Your task to perform on an android device: add a label to a message in the gmail app Image 0: 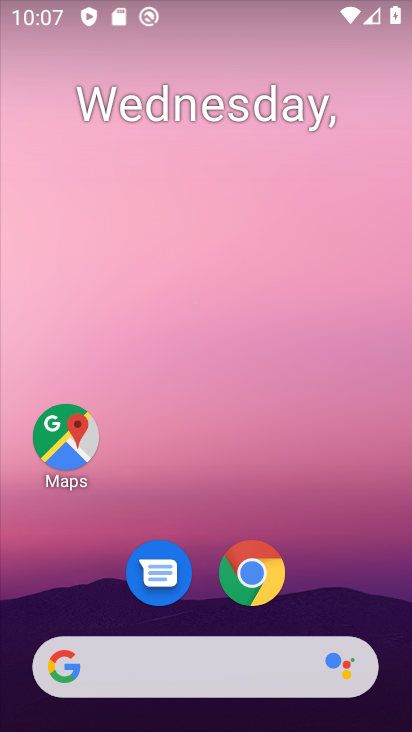
Step 0: drag from (201, 620) to (318, 253)
Your task to perform on an android device: add a label to a message in the gmail app Image 1: 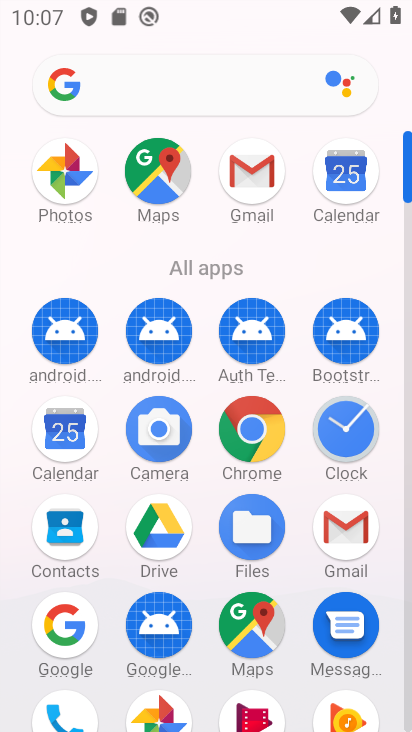
Step 1: click (332, 527)
Your task to perform on an android device: add a label to a message in the gmail app Image 2: 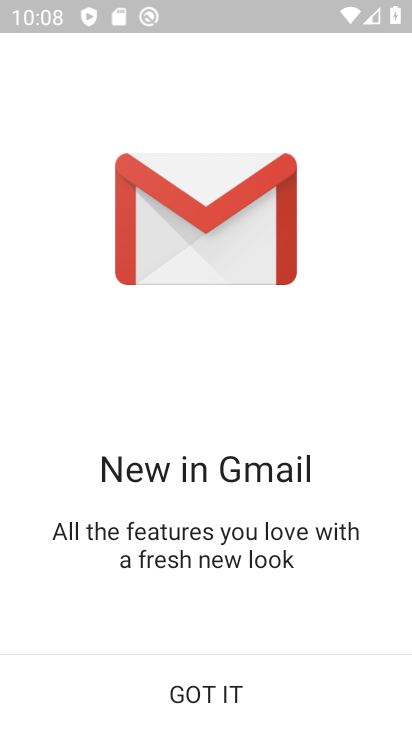
Step 2: click (182, 703)
Your task to perform on an android device: add a label to a message in the gmail app Image 3: 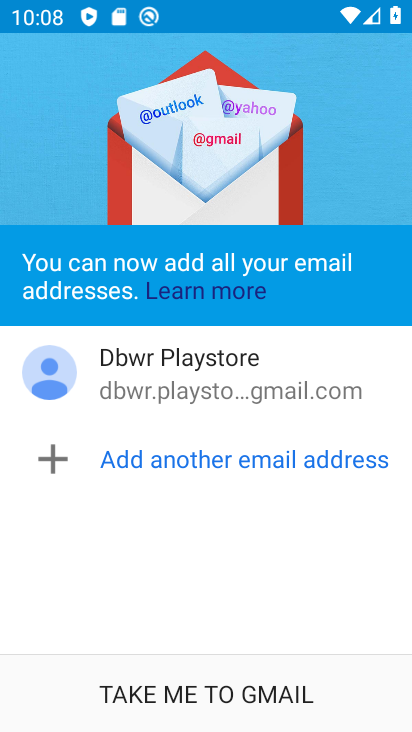
Step 3: click (176, 702)
Your task to perform on an android device: add a label to a message in the gmail app Image 4: 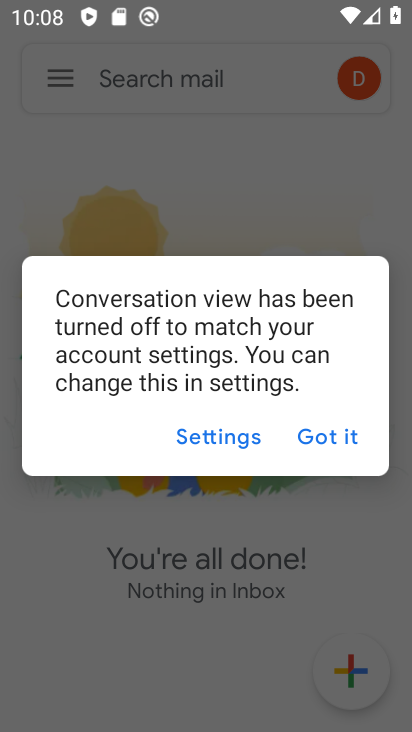
Step 4: click (311, 427)
Your task to perform on an android device: add a label to a message in the gmail app Image 5: 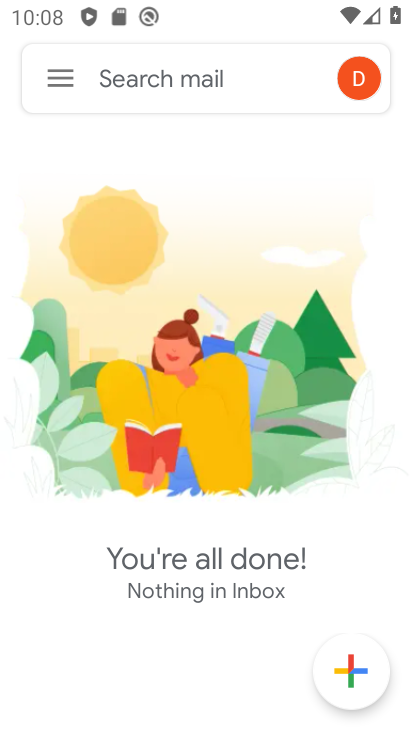
Step 5: click (39, 83)
Your task to perform on an android device: add a label to a message in the gmail app Image 6: 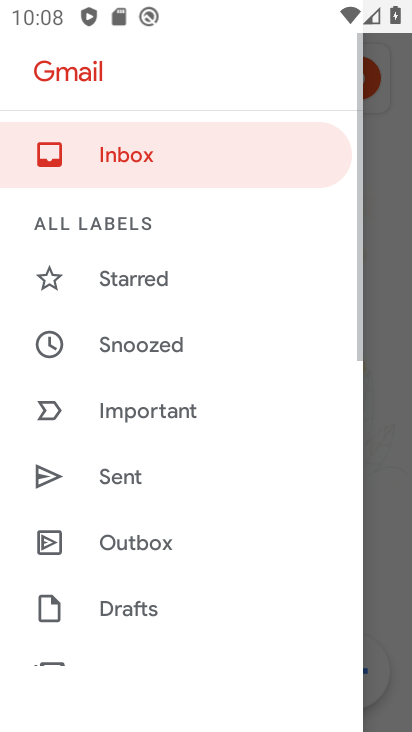
Step 6: drag from (156, 630) to (202, 217)
Your task to perform on an android device: add a label to a message in the gmail app Image 7: 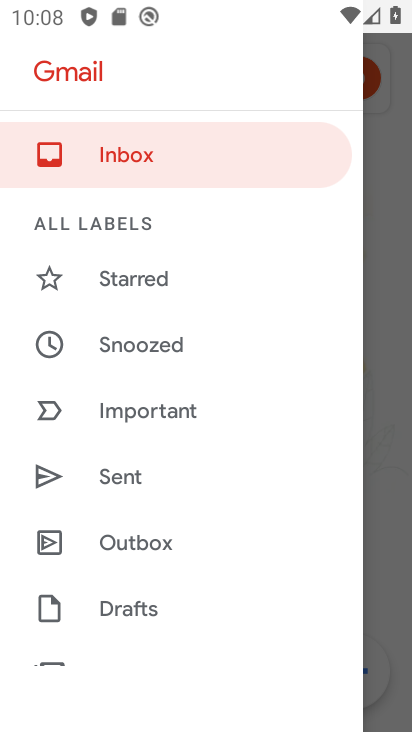
Step 7: drag from (139, 620) to (211, 205)
Your task to perform on an android device: add a label to a message in the gmail app Image 8: 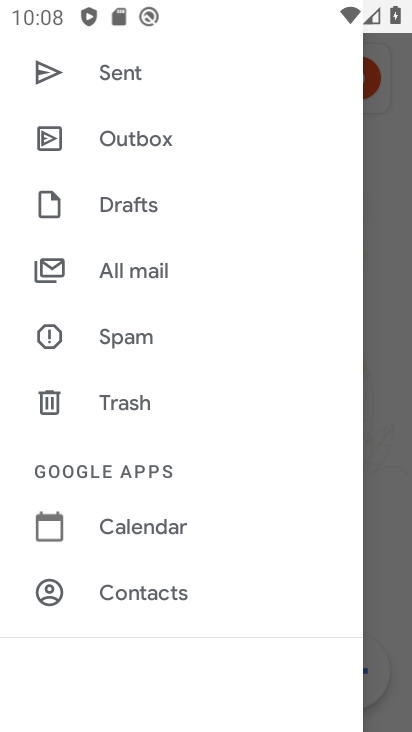
Step 8: click (149, 279)
Your task to perform on an android device: add a label to a message in the gmail app Image 9: 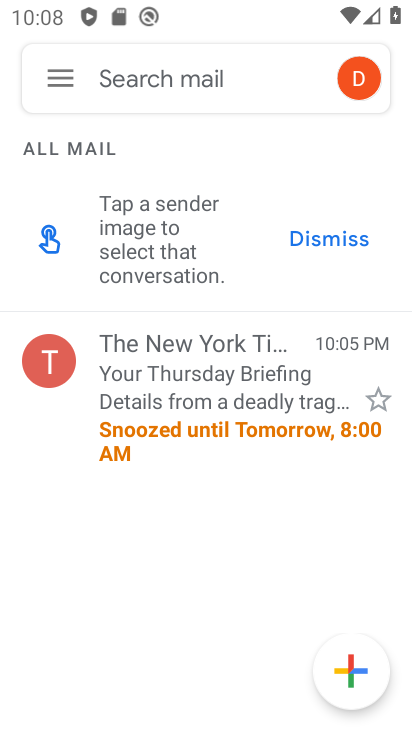
Step 9: click (308, 355)
Your task to perform on an android device: add a label to a message in the gmail app Image 10: 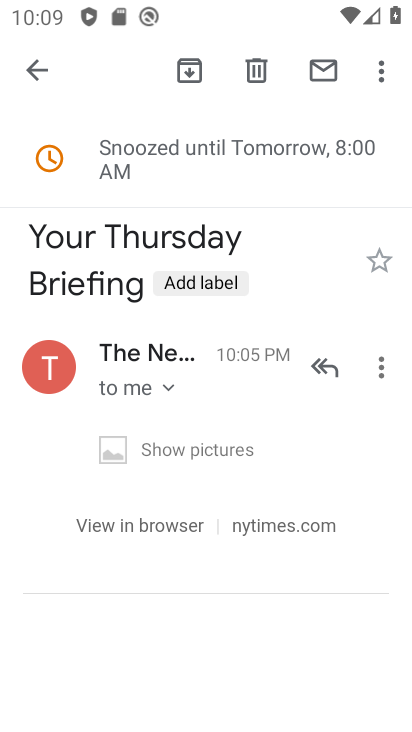
Step 10: click (381, 71)
Your task to perform on an android device: add a label to a message in the gmail app Image 11: 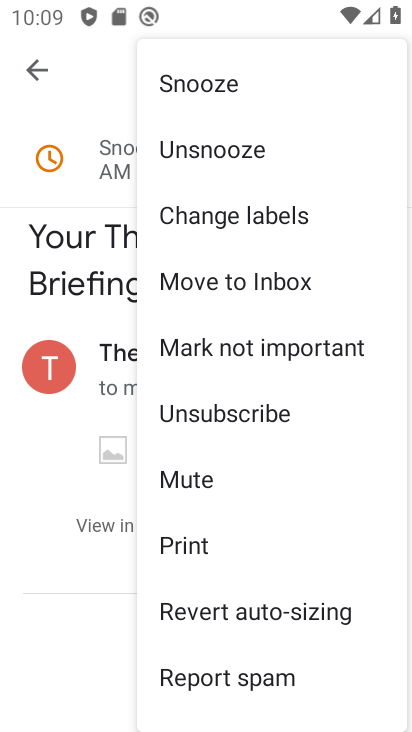
Step 11: click (276, 231)
Your task to perform on an android device: add a label to a message in the gmail app Image 12: 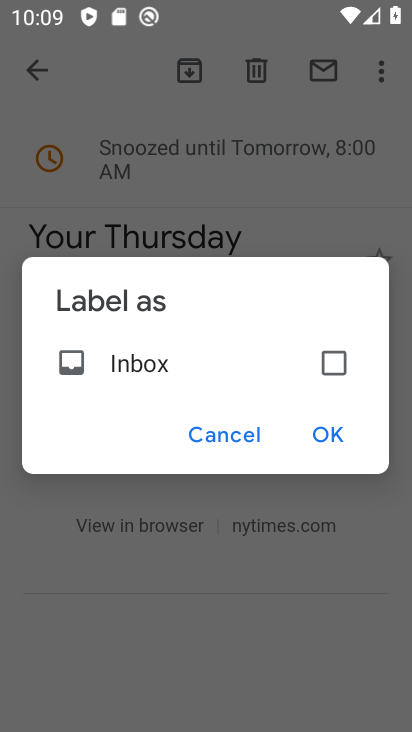
Step 12: click (323, 444)
Your task to perform on an android device: add a label to a message in the gmail app Image 13: 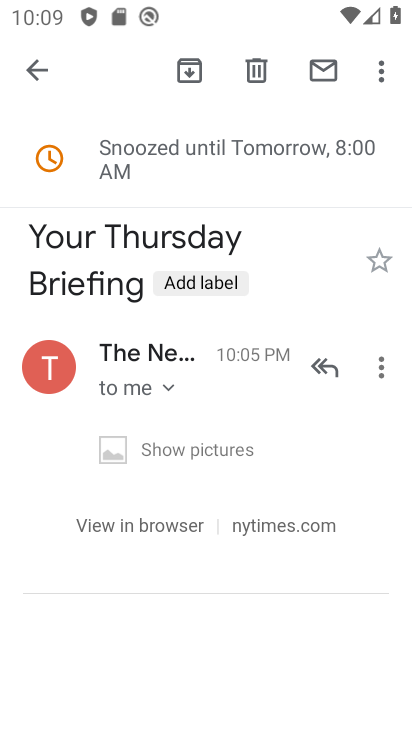
Step 13: task complete